Your task to perform on an android device: Add dell xps to the cart on ebay.com, then select checkout. Image 0: 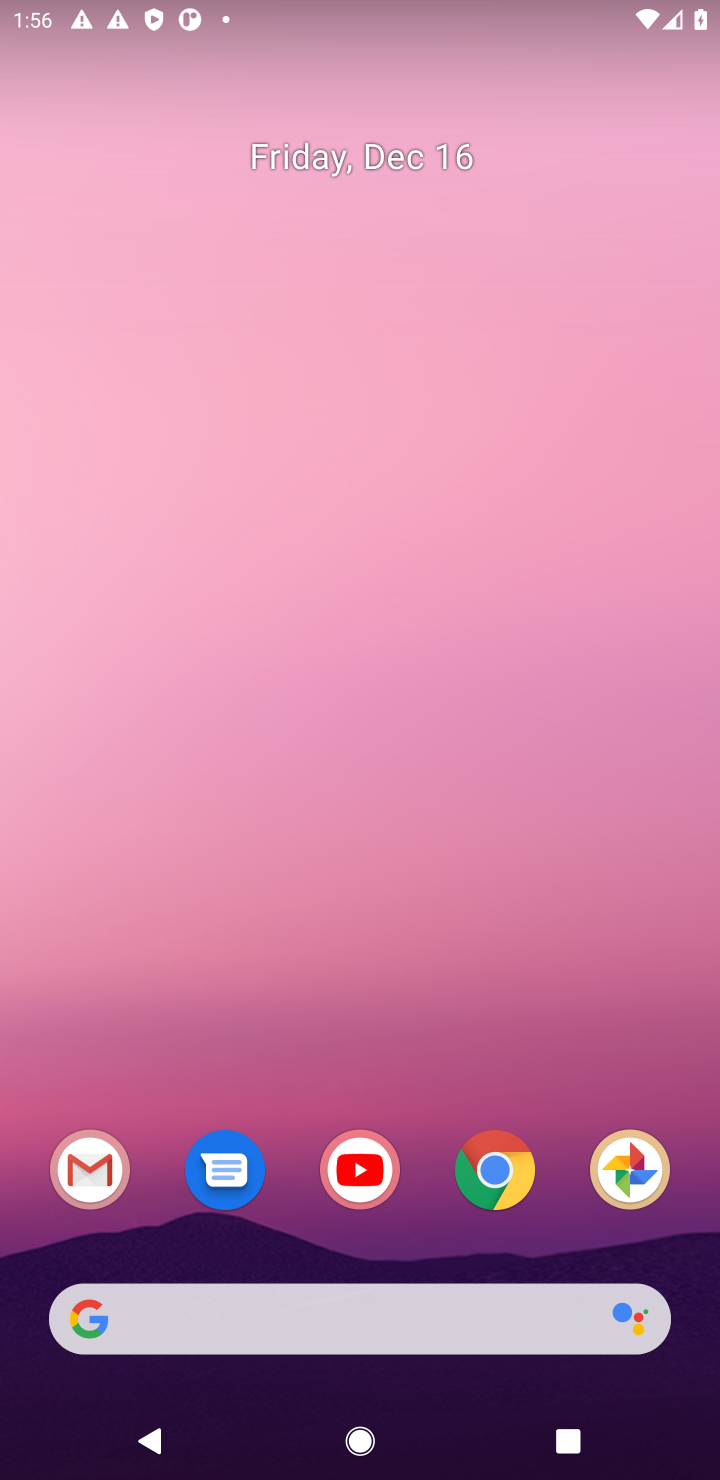
Step 0: click (502, 1176)
Your task to perform on an android device: Add dell xps to the cart on ebay.com, then select checkout. Image 1: 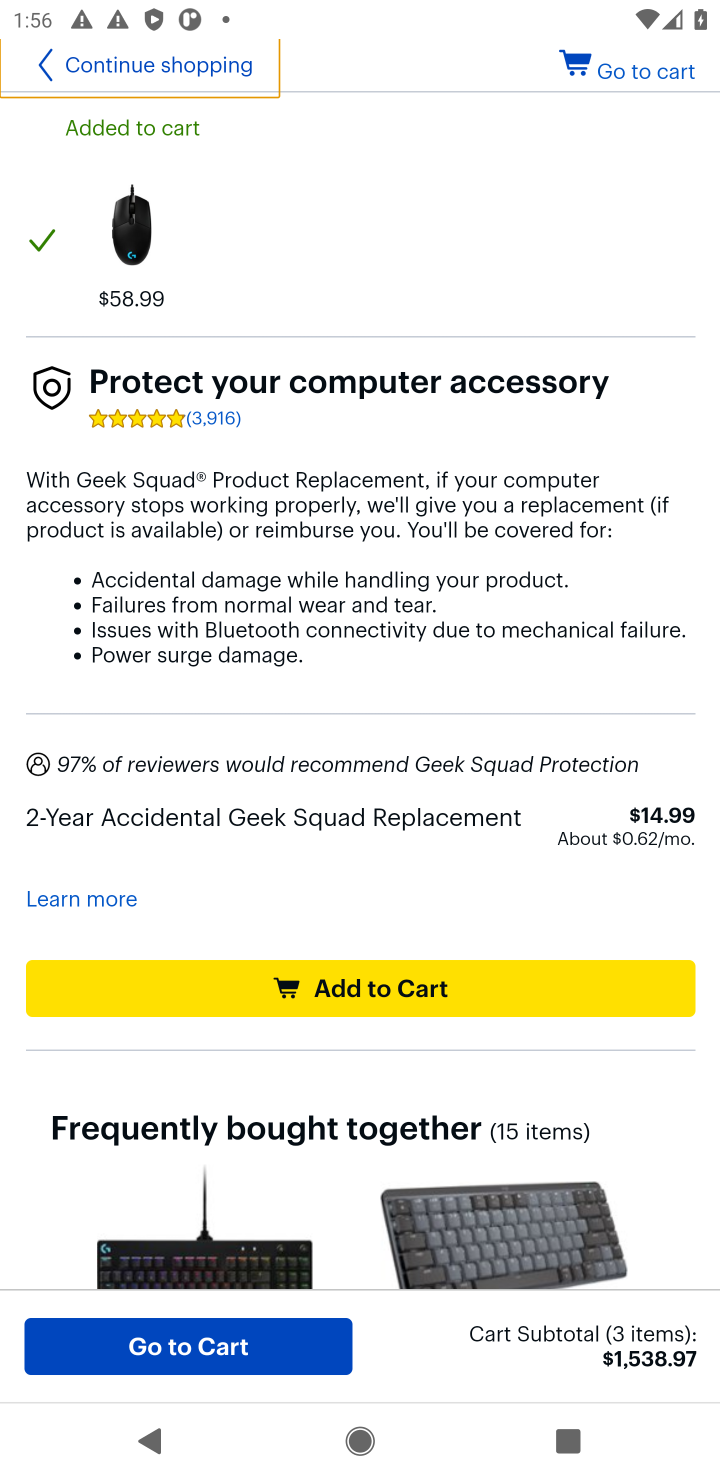
Step 1: click (301, 90)
Your task to perform on an android device: Add dell xps to the cart on ebay.com, then select checkout. Image 2: 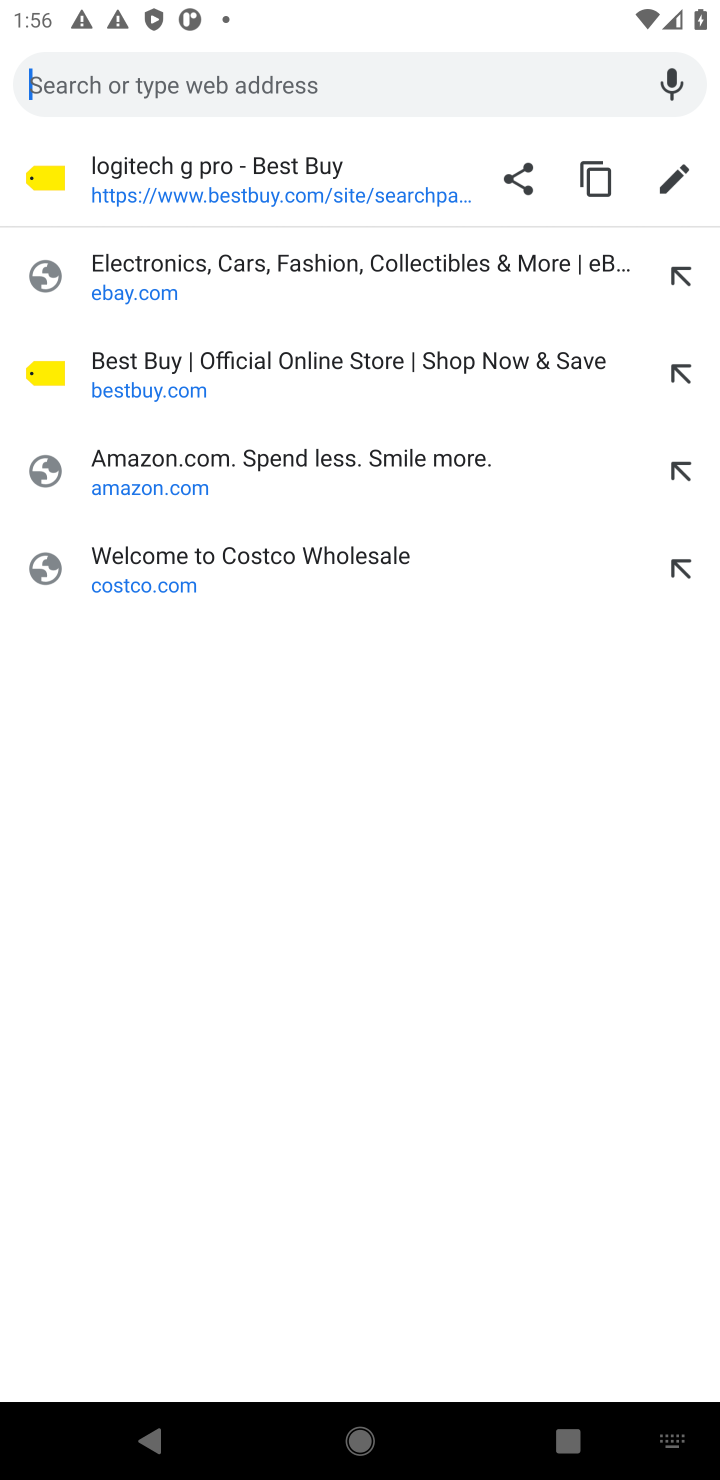
Step 2: click (154, 273)
Your task to perform on an android device: Add dell xps to the cart on ebay.com, then select checkout. Image 3: 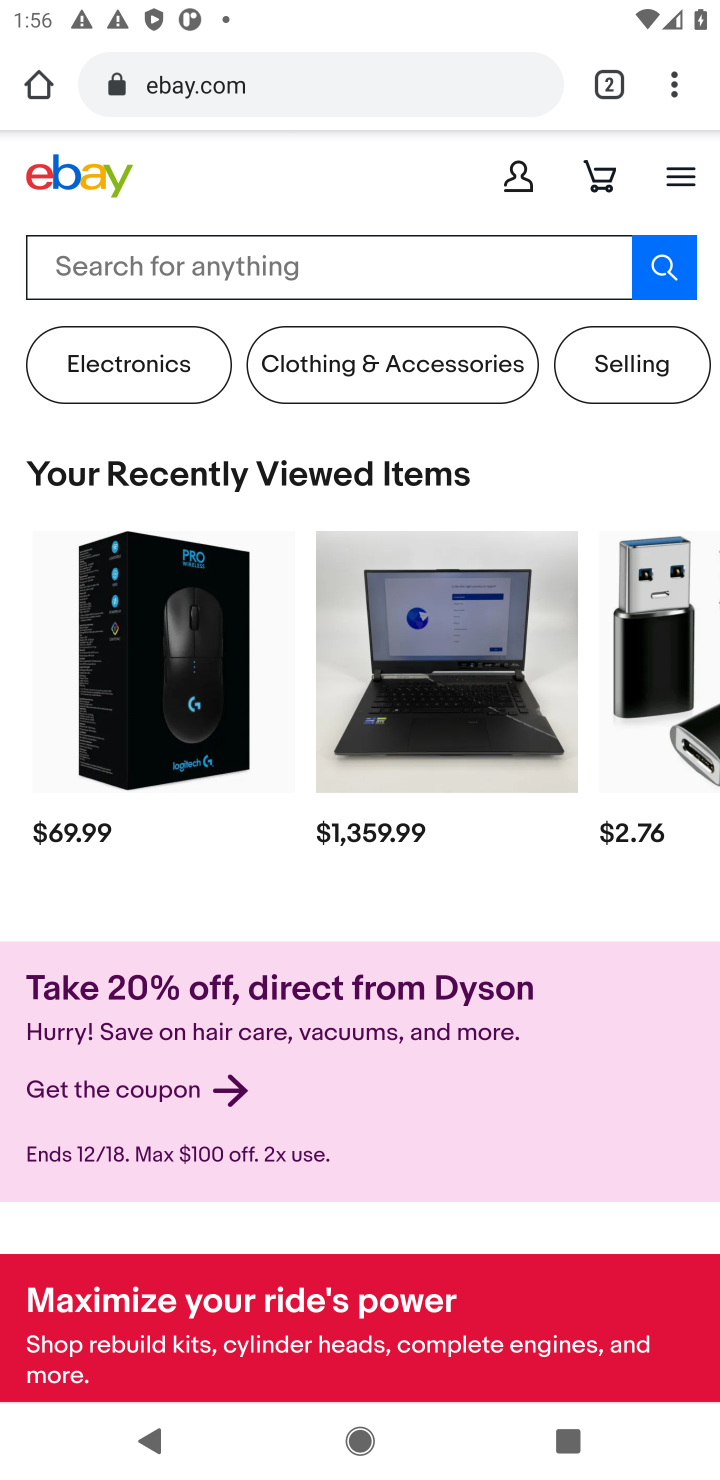
Step 3: click (152, 273)
Your task to perform on an android device: Add dell xps to the cart on ebay.com, then select checkout. Image 4: 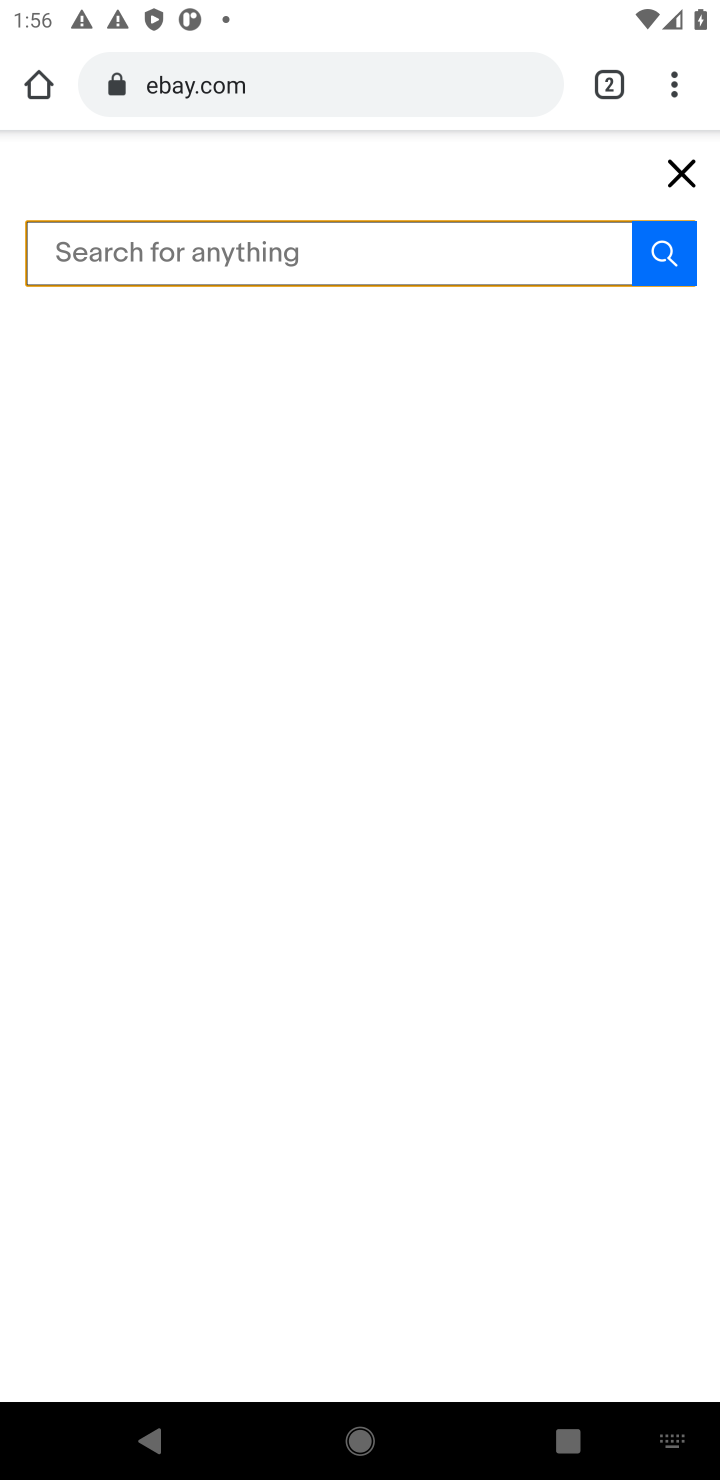
Step 4: type "dell xps"
Your task to perform on an android device: Add dell xps to the cart on ebay.com, then select checkout. Image 5: 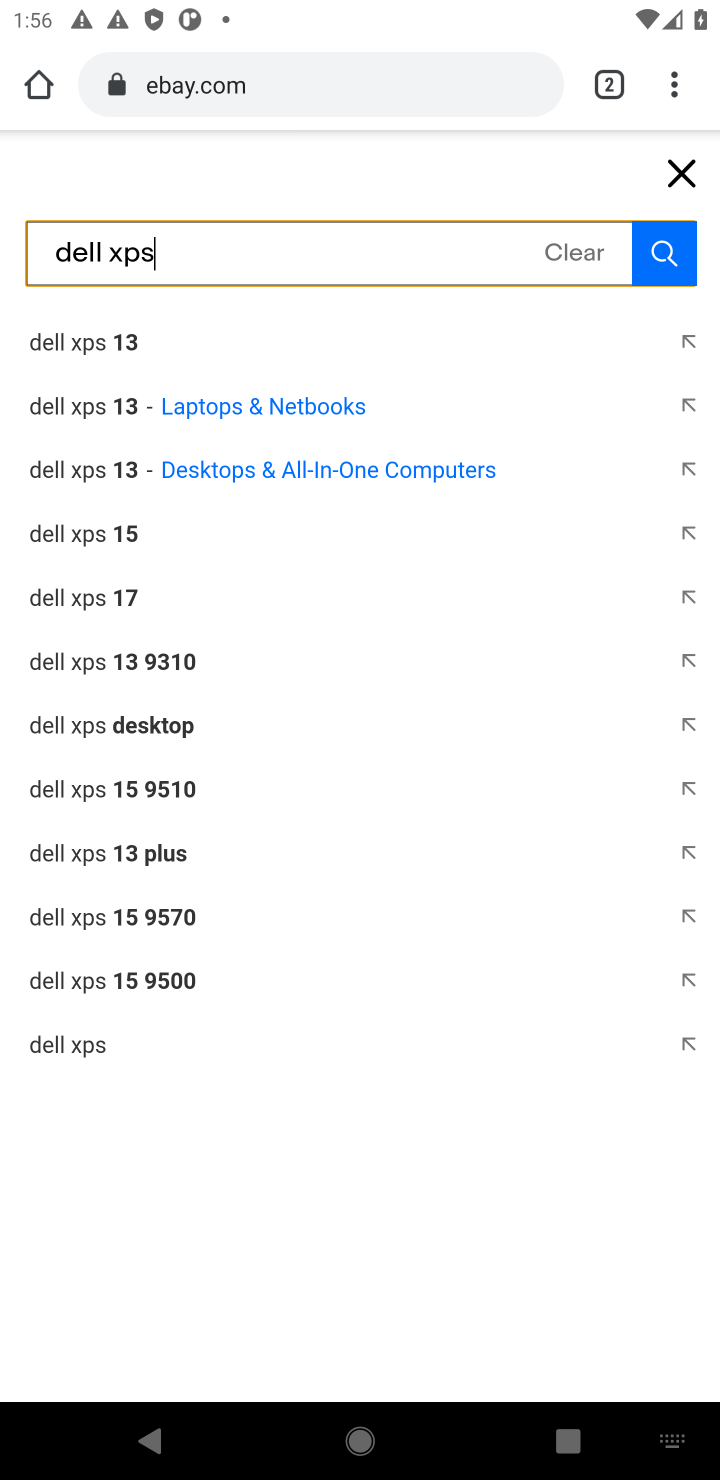
Step 5: click (51, 1053)
Your task to perform on an android device: Add dell xps to the cart on ebay.com, then select checkout. Image 6: 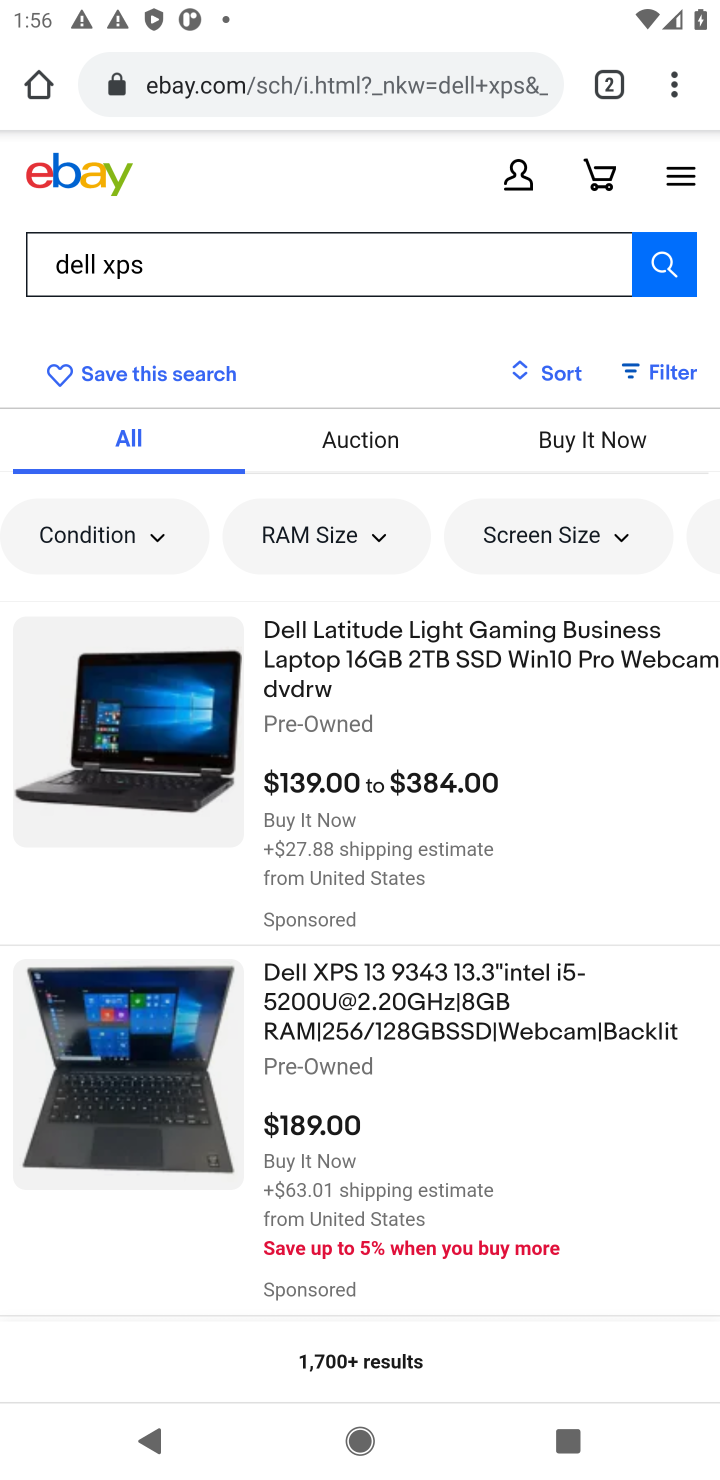
Step 6: click (364, 1030)
Your task to perform on an android device: Add dell xps to the cart on ebay.com, then select checkout. Image 7: 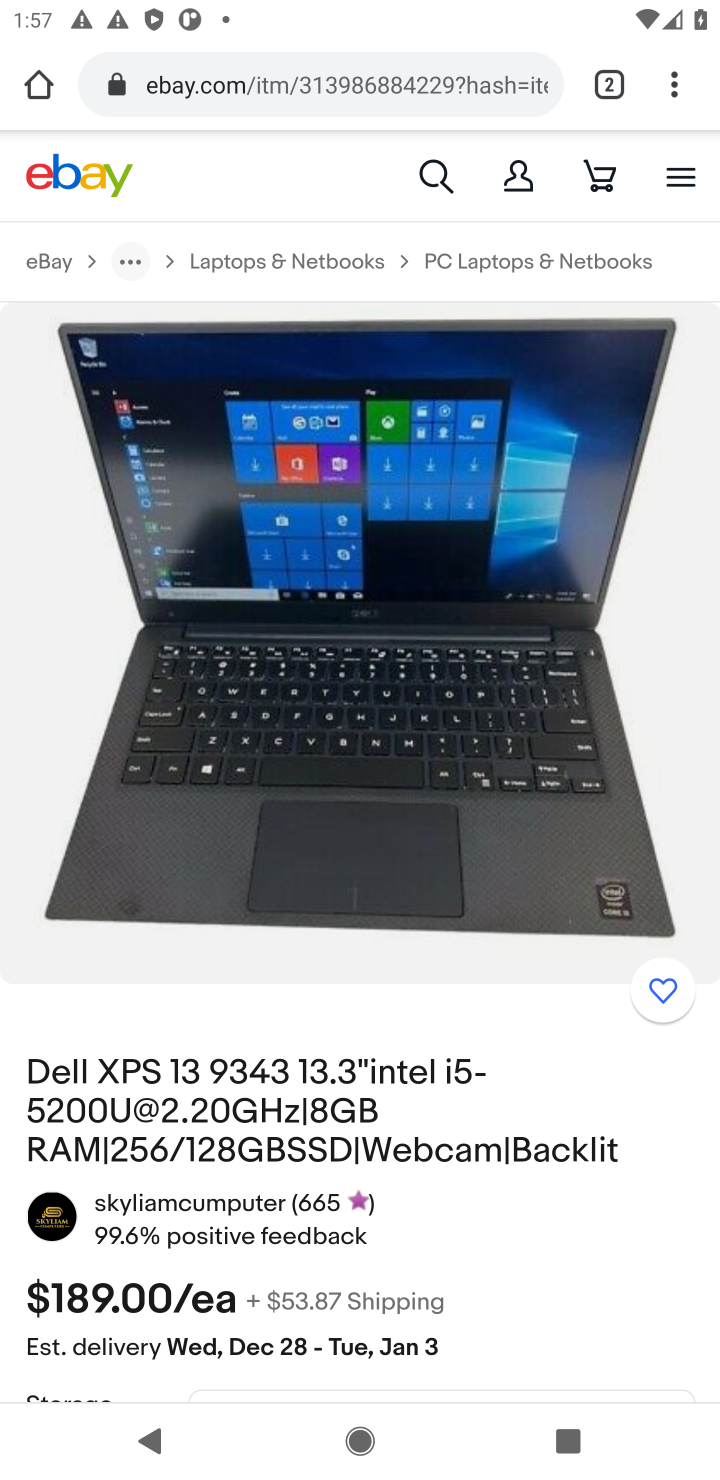
Step 7: drag from (342, 959) to (337, 563)
Your task to perform on an android device: Add dell xps to the cart on ebay.com, then select checkout. Image 8: 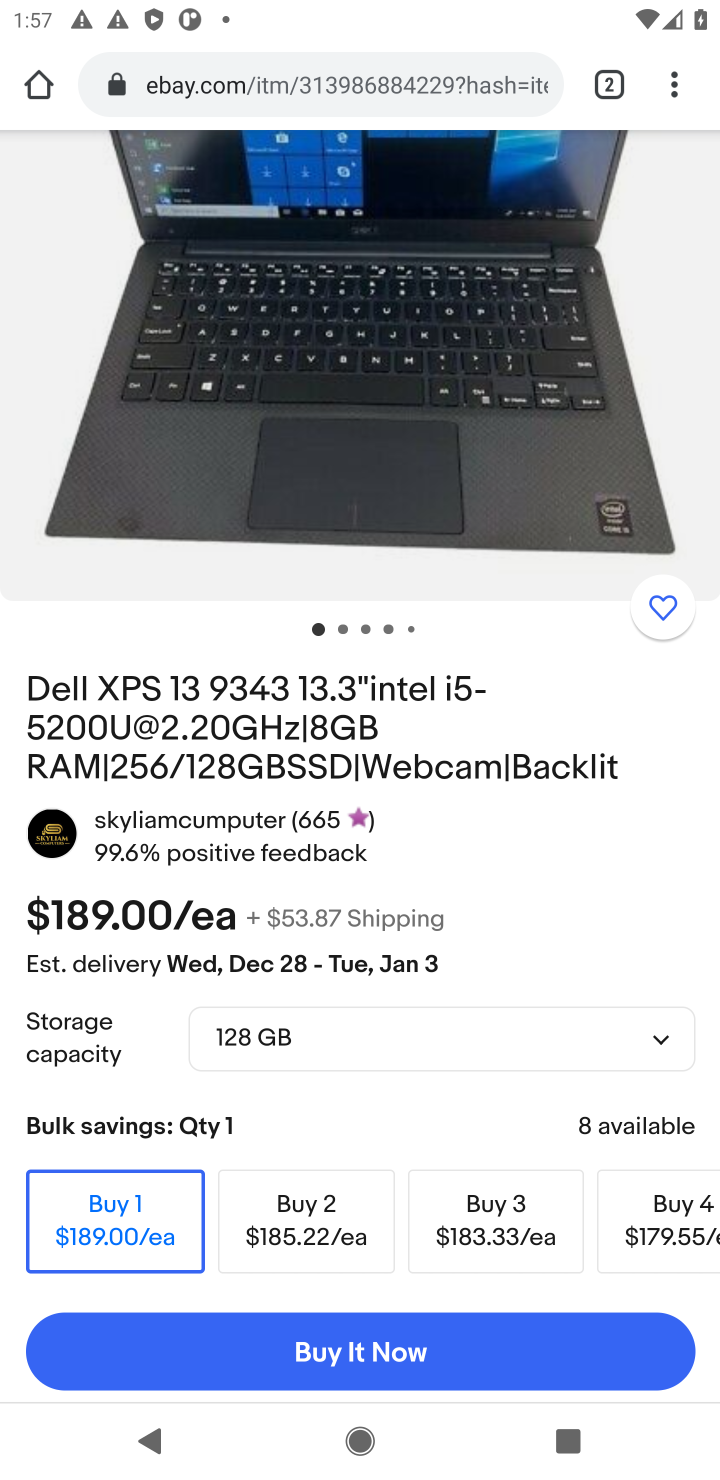
Step 8: drag from (395, 992) to (373, 703)
Your task to perform on an android device: Add dell xps to the cart on ebay.com, then select checkout. Image 9: 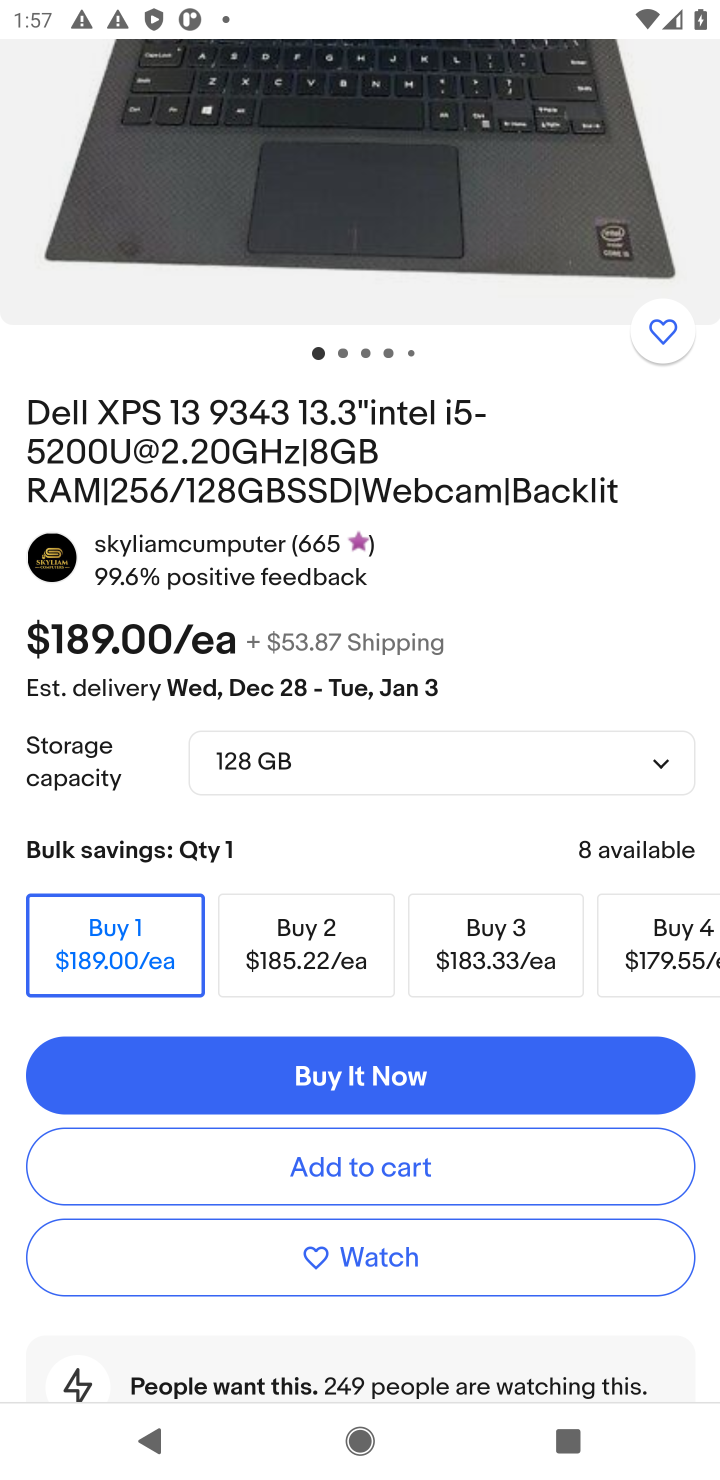
Step 9: click (314, 1159)
Your task to perform on an android device: Add dell xps to the cart on ebay.com, then select checkout. Image 10: 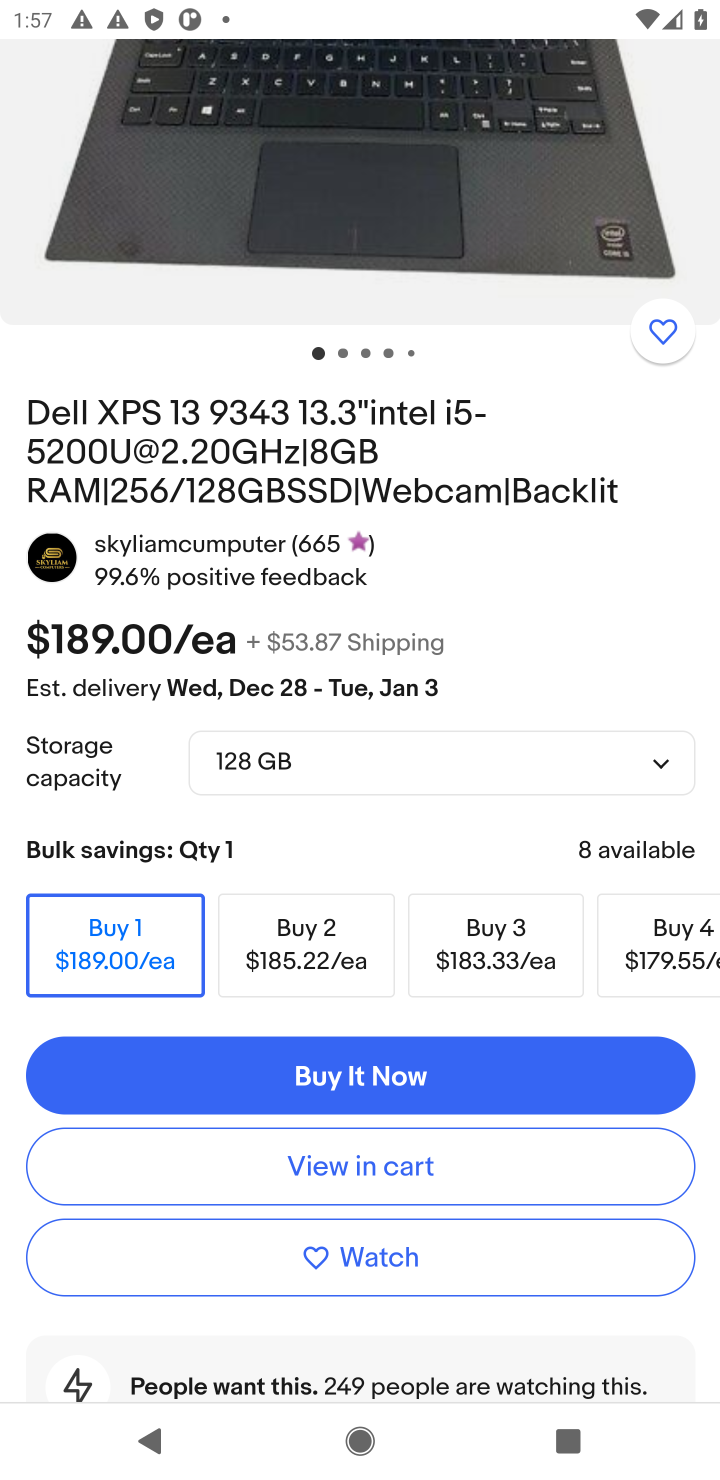
Step 10: click (318, 1166)
Your task to perform on an android device: Add dell xps to the cart on ebay.com, then select checkout. Image 11: 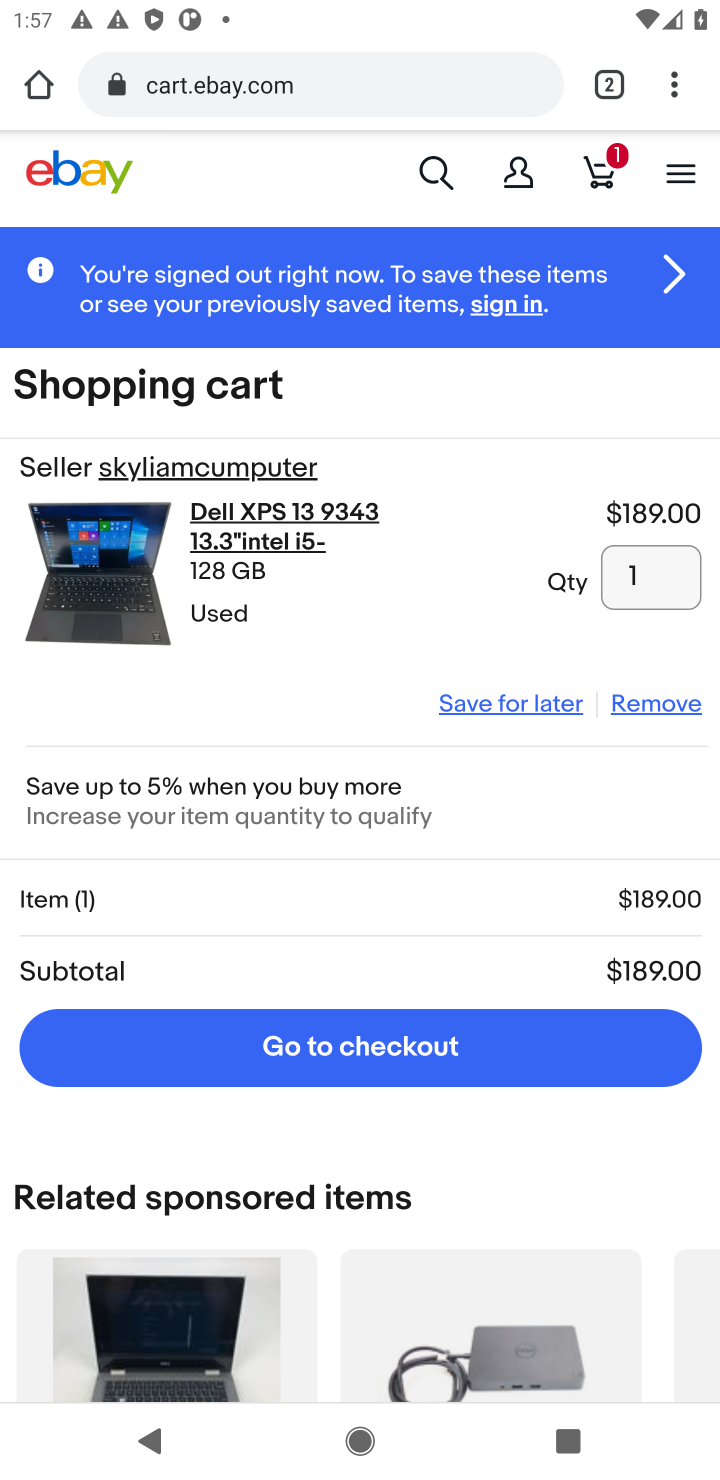
Step 11: click (335, 1052)
Your task to perform on an android device: Add dell xps to the cart on ebay.com, then select checkout. Image 12: 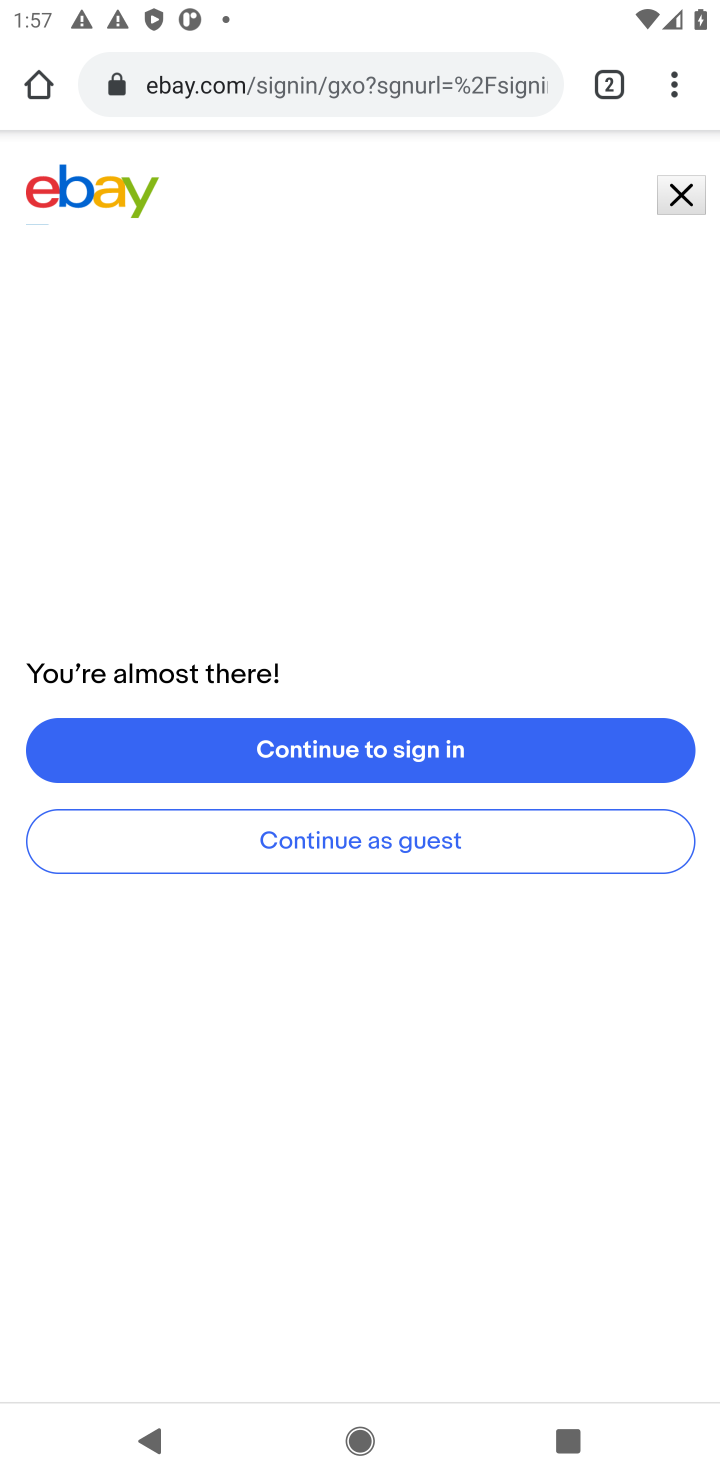
Step 12: task complete